Your task to perform on an android device: What's the weather going to be this weekend? Image 0: 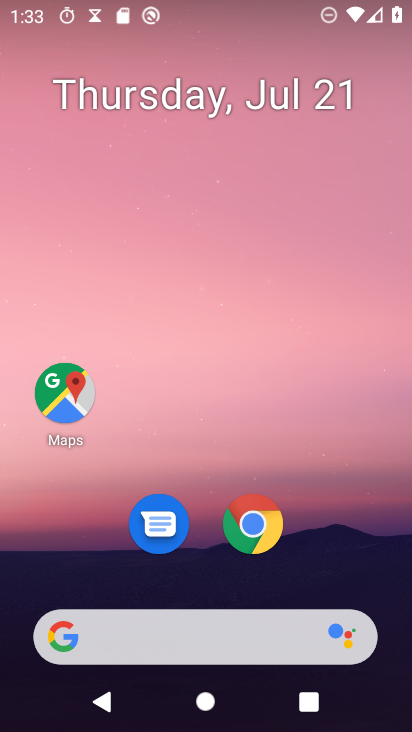
Step 0: click (179, 636)
Your task to perform on an android device: What's the weather going to be this weekend? Image 1: 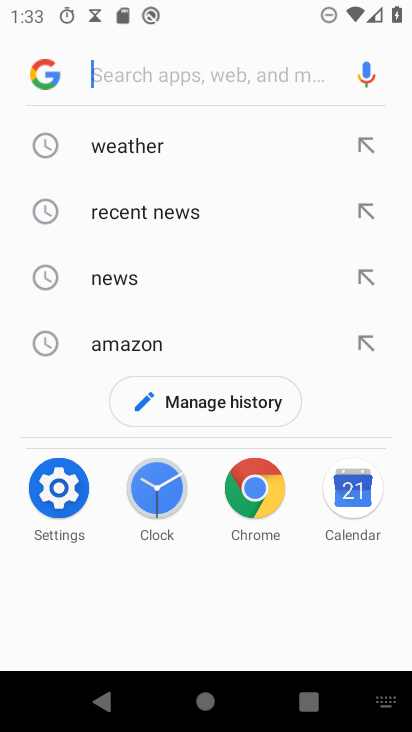
Step 1: click (132, 144)
Your task to perform on an android device: What's the weather going to be this weekend? Image 2: 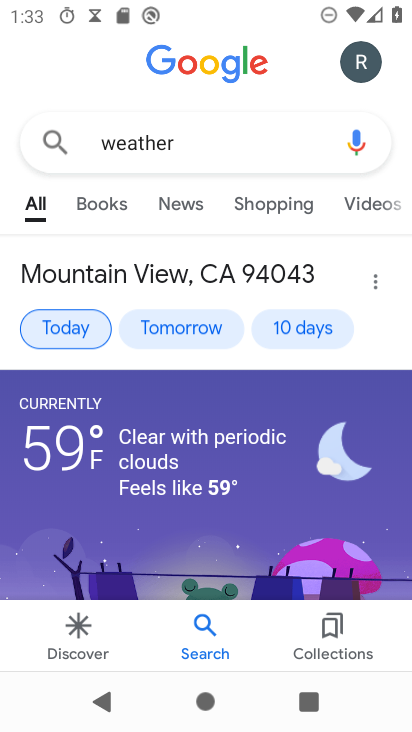
Step 2: click (302, 329)
Your task to perform on an android device: What's the weather going to be this weekend? Image 3: 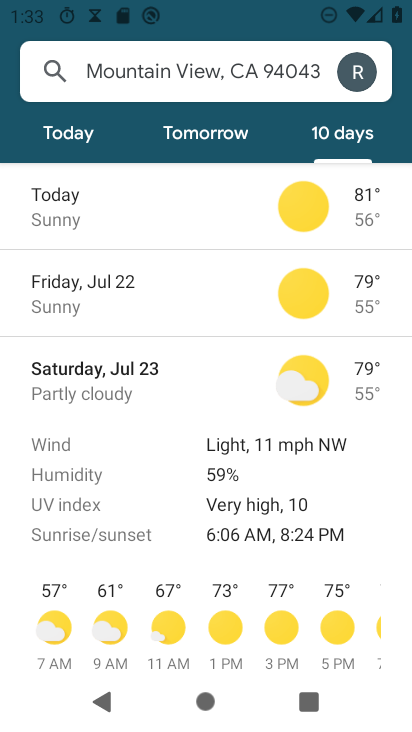
Step 3: task complete